Your task to perform on an android device: Open notification settings Image 0: 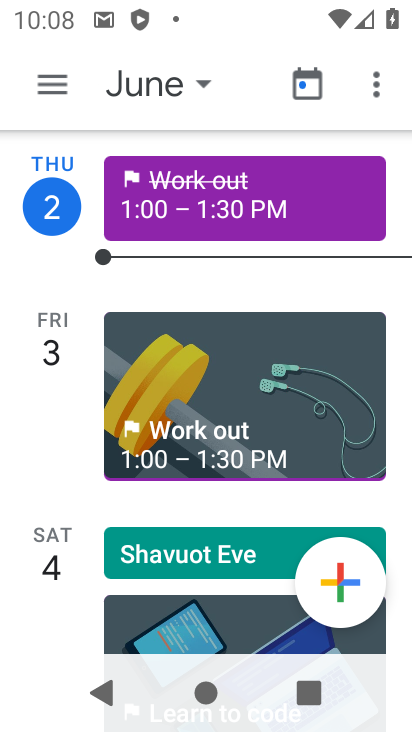
Step 0: press home button
Your task to perform on an android device: Open notification settings Image 1: 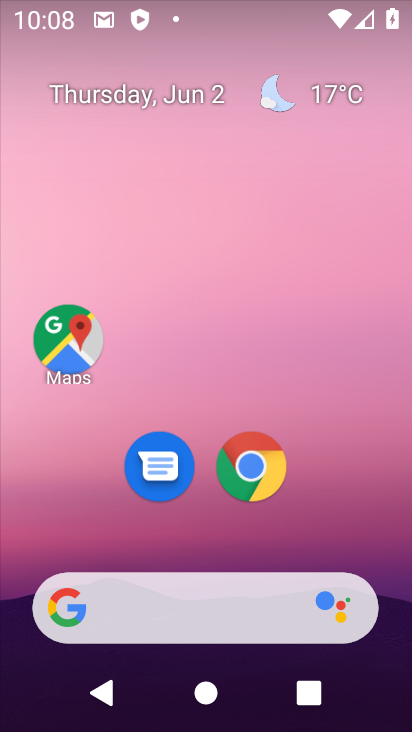
Step 1: drag from (380, 517) to (347, 137)
Your task to perform on an android device: Open notification settings Image 2: 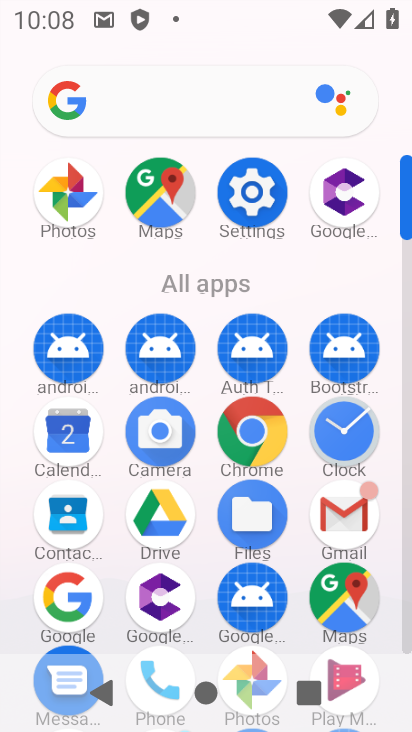
Step 2: click (271, 202)
Your task to perform on an android device: Open notification settings Image 3: 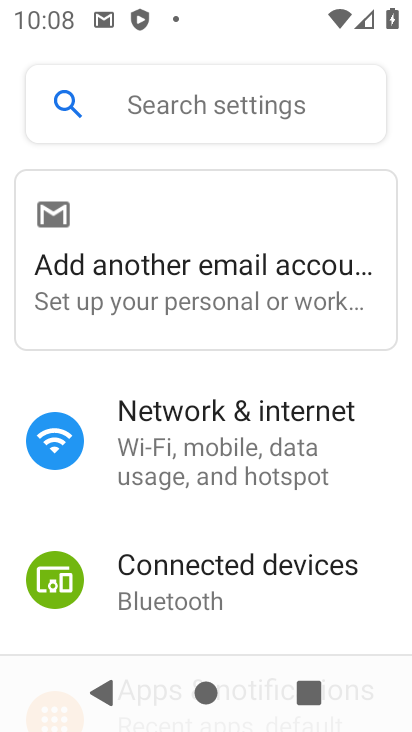
Step 3: drag from (305, 346) to (323, 53)
Your task to perform on an android device: Open notification settings Image 4: 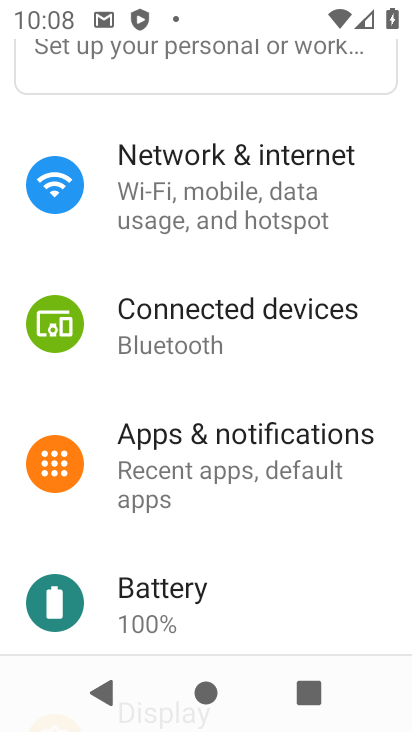
Step 4: click (265, 445)
Your task to perform on an android device: Open notification settings Image 5: 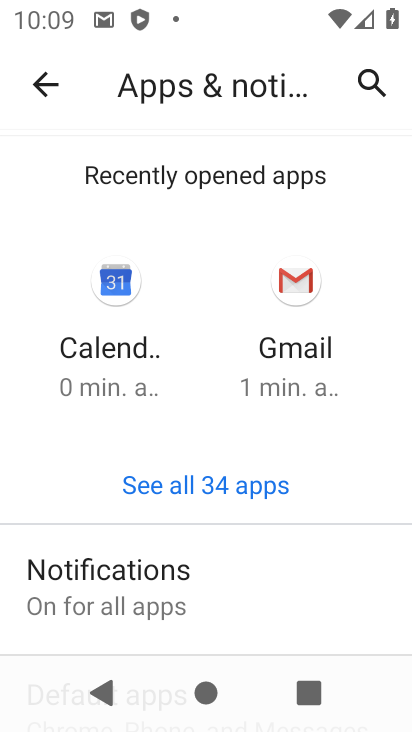
Step 5: task complete